Your task to perform on an android device: What's on my calendar today? Image 0: 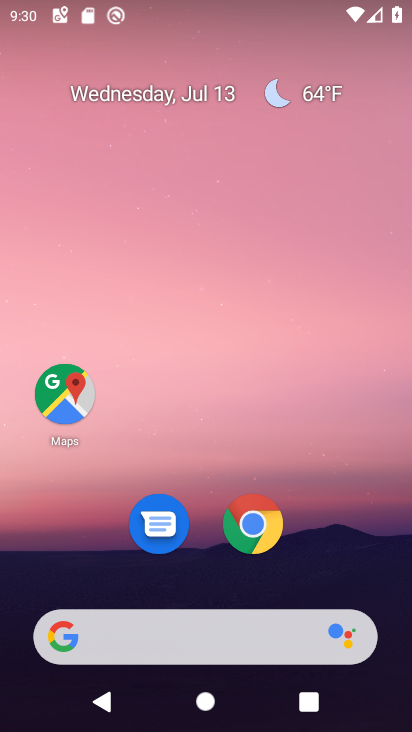
Step 0: drag from (223, 589) to (331, 39)
Your task to perform on an android device: What's on my calendar today? Image 1: 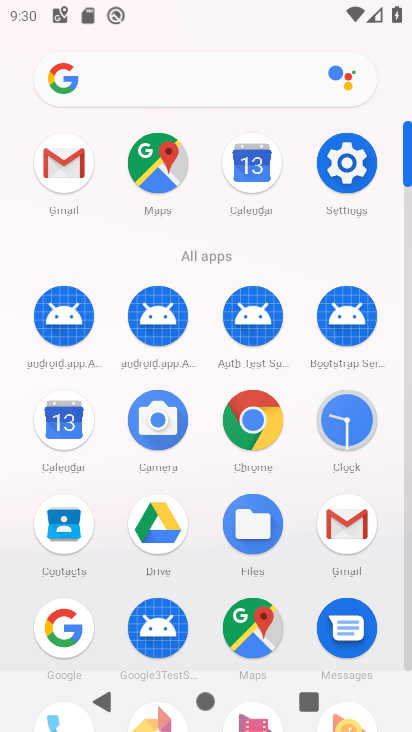
Step 1: click (67, 437)
Your task to perform on an android device: What's on my calendar today? Image 2: 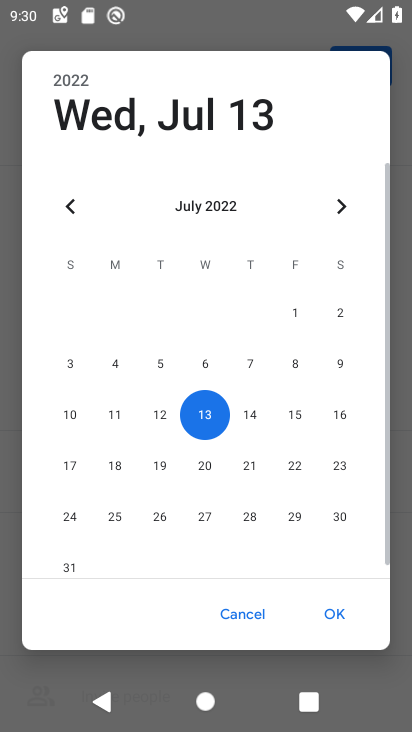
Step 2: click (244, 611)
Your task to perform on an android device: What's on my calendar today? Image 3: 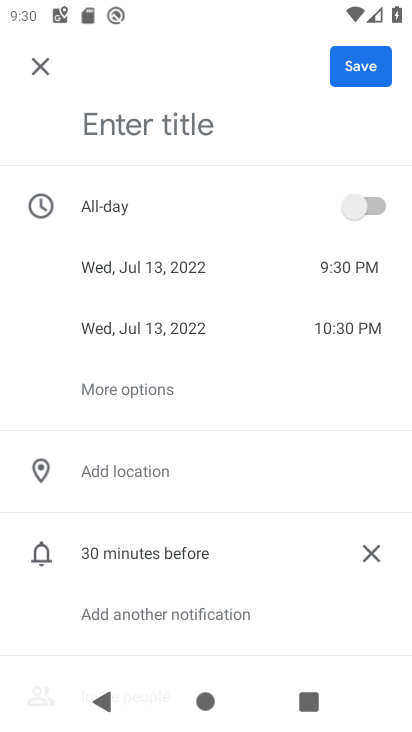
Step 3: click (51, 64)
Your task to perform on an android device: What's on my calendar today? Image 4: 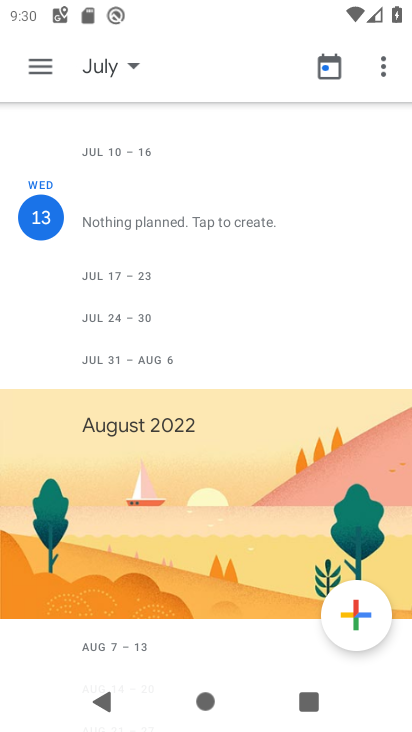
Step 4: click (51, 64)
Your task to perform on an android device: What's on my calendar today? Image 5: 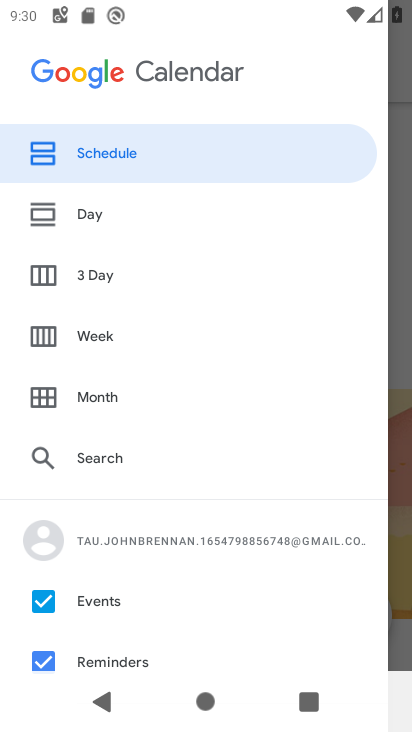
Step 5: click (100, 338)
Your task to perform on an android device: What's on my calendar today? Image 6: 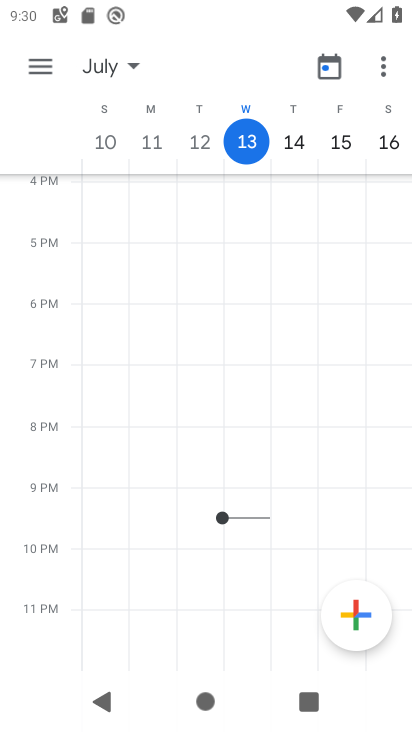
Step 6: click (253, 129)
Your task to perform on an android device: What's on my calendar today? Image 7: 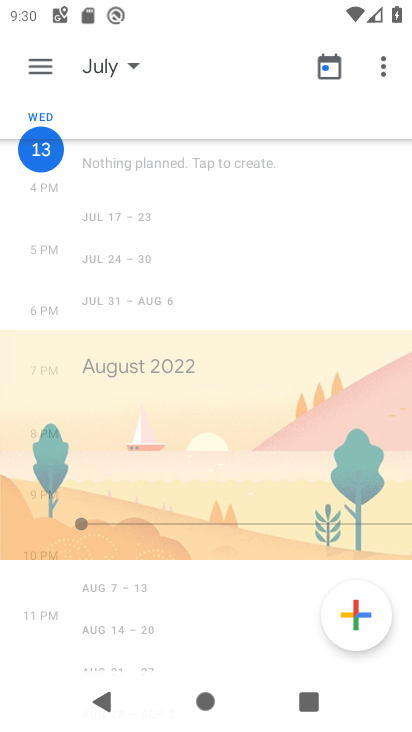
Step 7: task complete